Your task to perform on an android device: set default search engine in the chrome app Image 0: 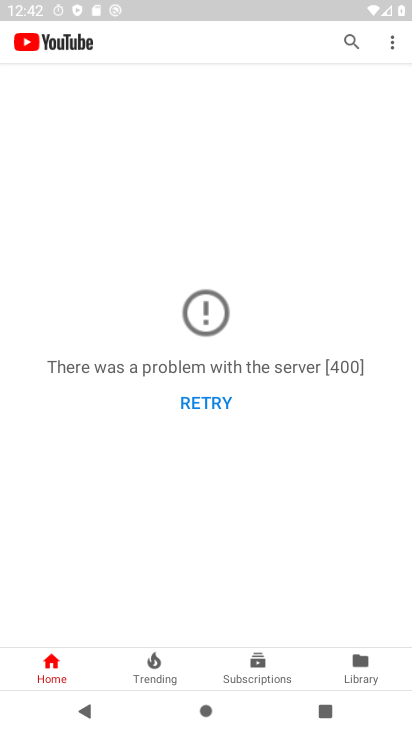
Step 0: press home button
Your task to perform on an android device: set default search engine in the chrome app Image 1: 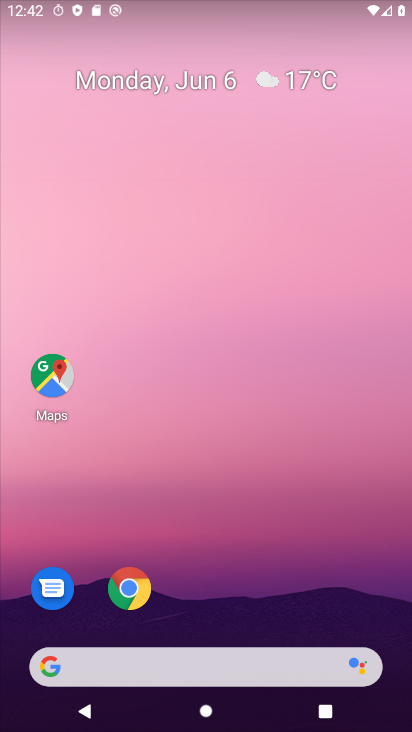
Step 1: drag from (252, 550) to (279, 48)
Your task to perform on an android device: set default search engine in the chrome app Image 2: 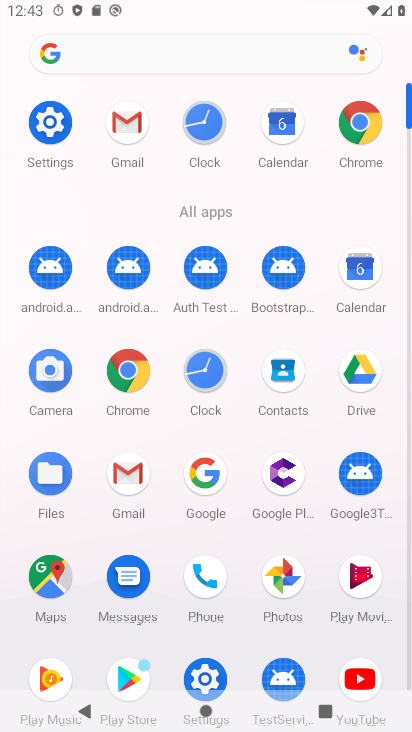
Step 2: click (127, 365)
Your task to perform on an android device: set default search engine in the chrome app Image 3: 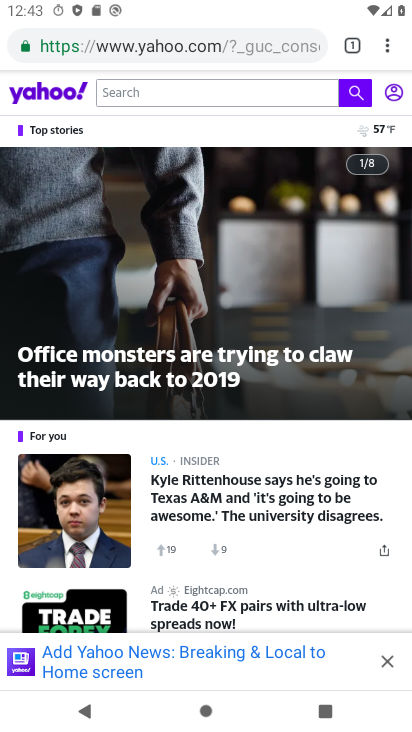
Step 3: drag from (389, 44) to (227, 553)
Your task to perform on an android device: set default search engine in the chrome app Image 4: 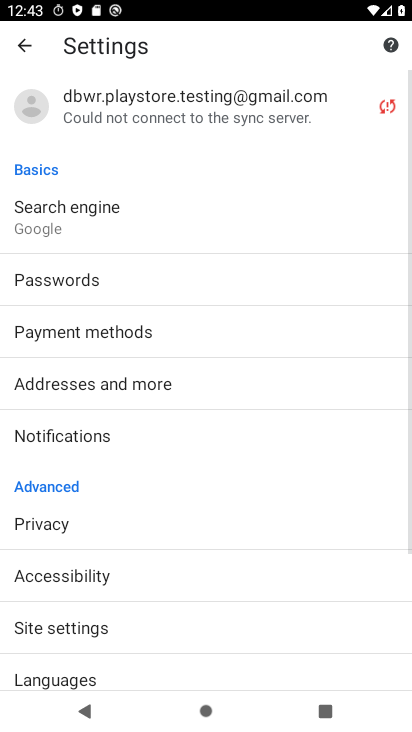
Step 4: click (139, 216)
Your task to perform on an android device: set default search engine in the chrome app Image 5: 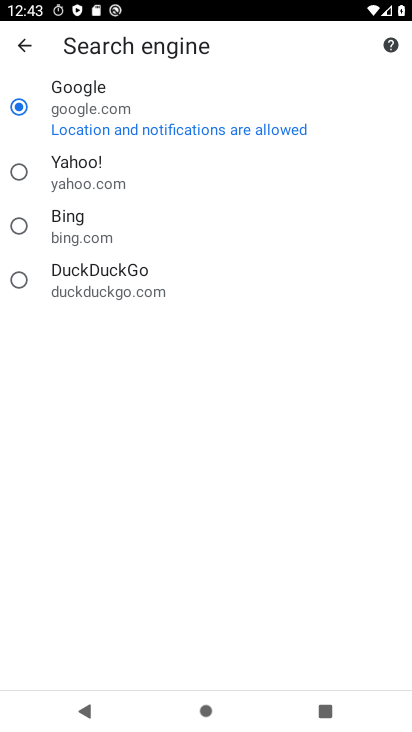
Step 5: task complete